Your task to perform on an android device: empty trash in the gmail app Image 0: 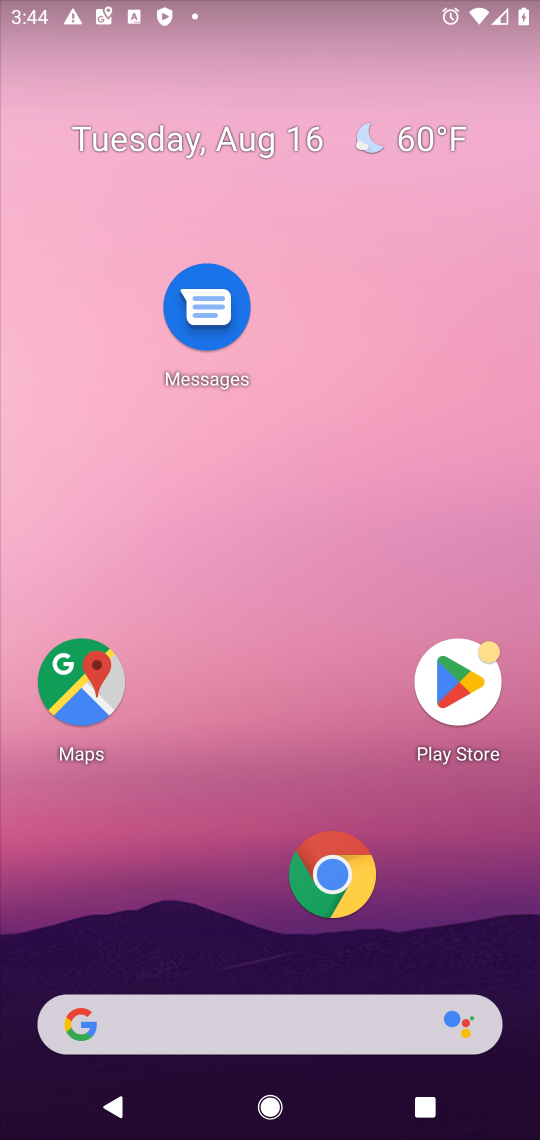
Step 0: drag from (257, 840) to (204, 302)
Your task to perform on an android device: empty trash in the gmail app Image 1: 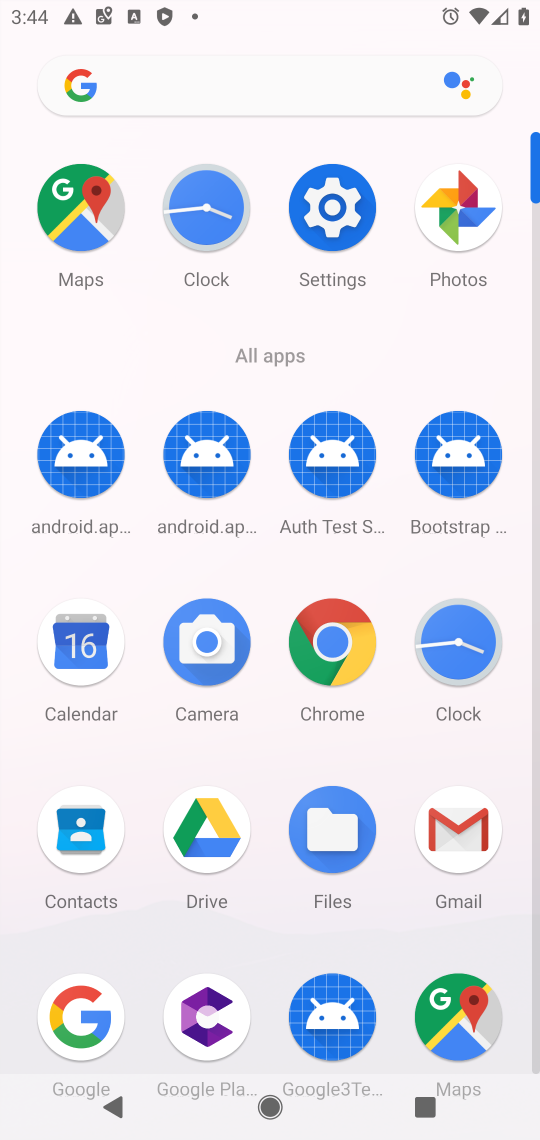
Step 1: click (461, 837)
Your task to perform on an android device: empty trash in the gmail app Image 2: 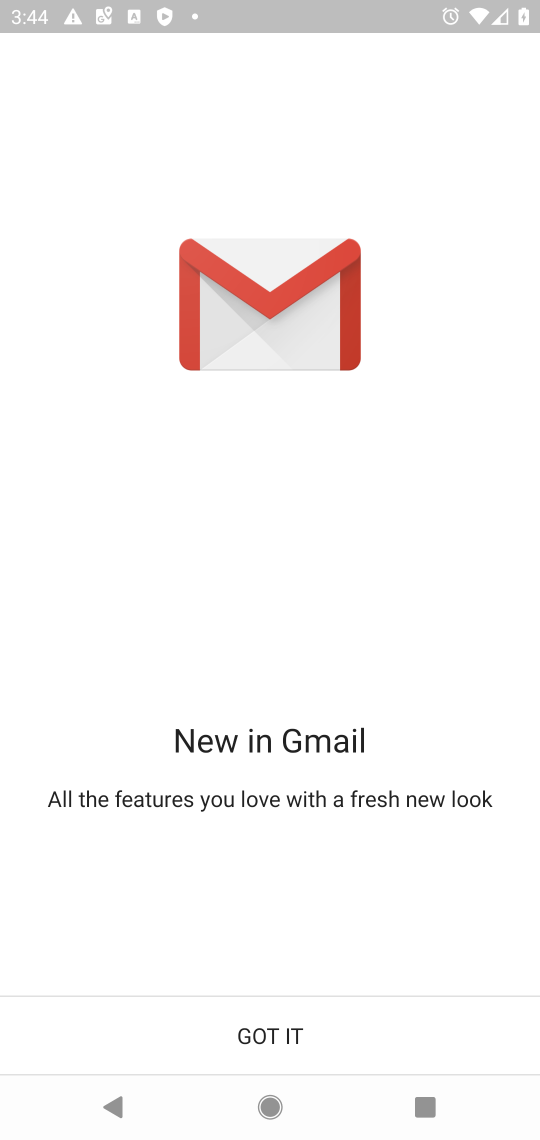
Step 2: click (269, 1027)
Your task to perform on an android device: empty trash in the gmail app Image 3: 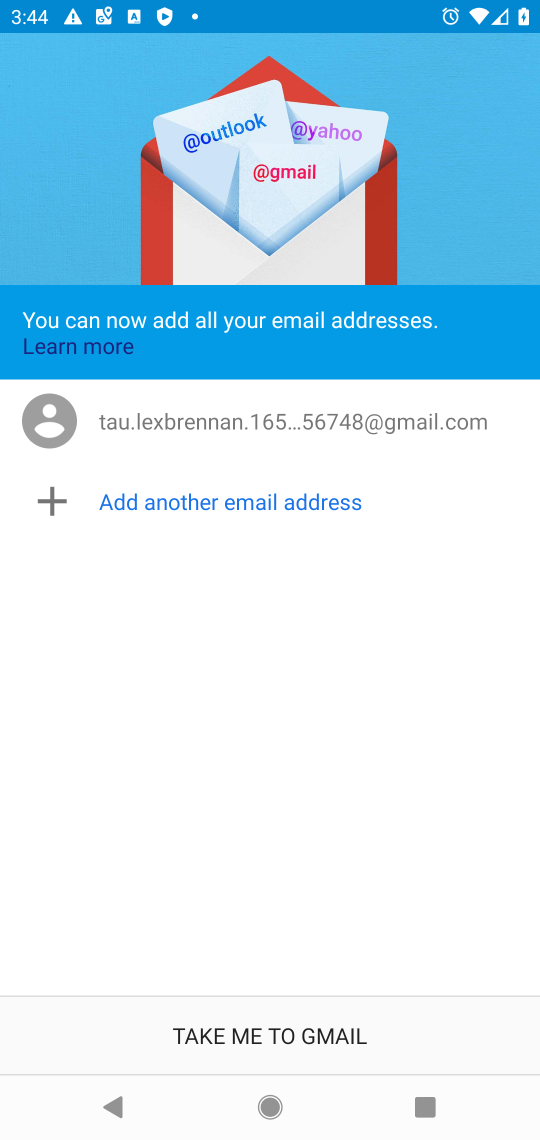
Step 3: click (238, 1039)
Your task to perform on an android device: empty trash in the gmail app Image 4: 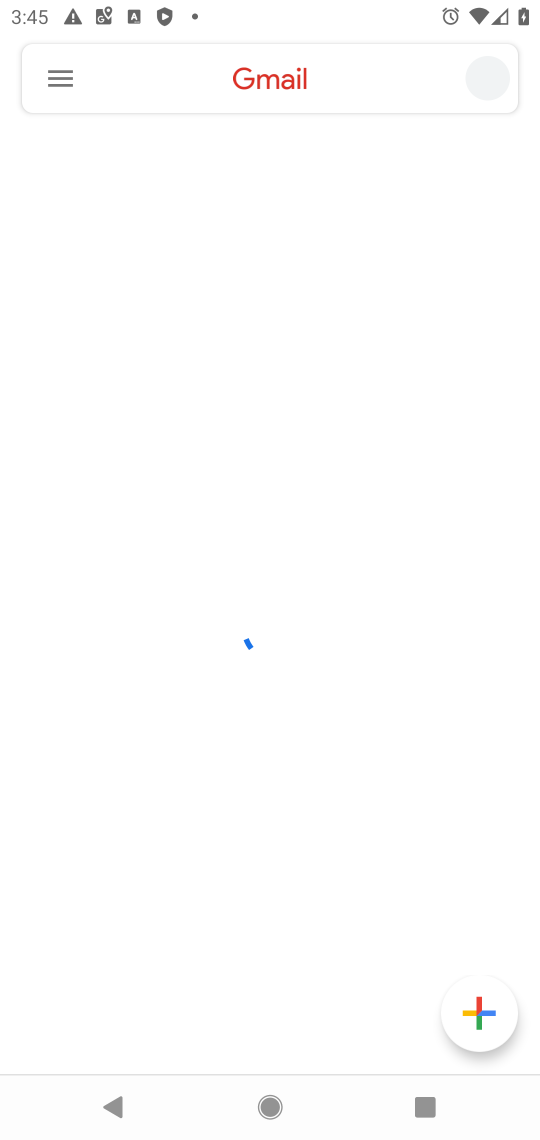
Step 4: click (59, 86)
Your task to perform on an android device: empty trash in the gmail app Image 5: 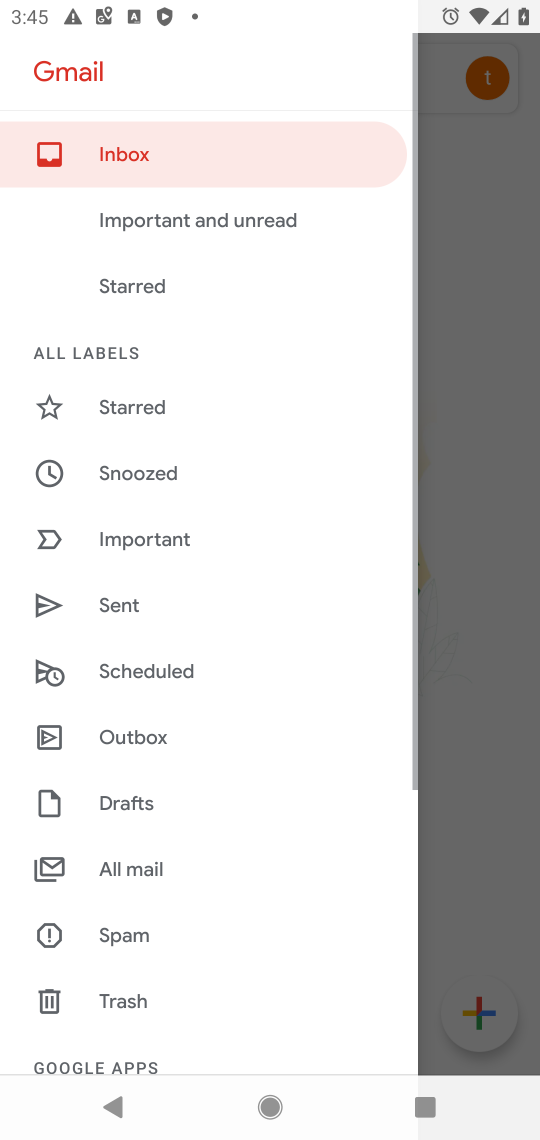
Step 5: click (453, 319)
Your task to perform on an android device: empty trash in the gmail app Image 6: 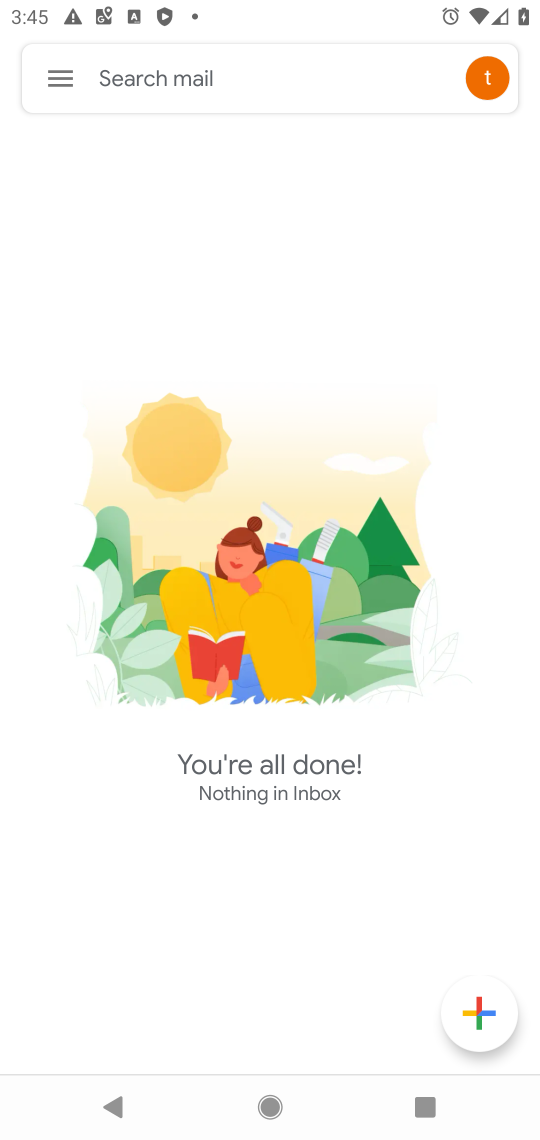
Step 6: click (60, 74)
Your task to perform on an android device: empty trash in the gmail app Image 7: 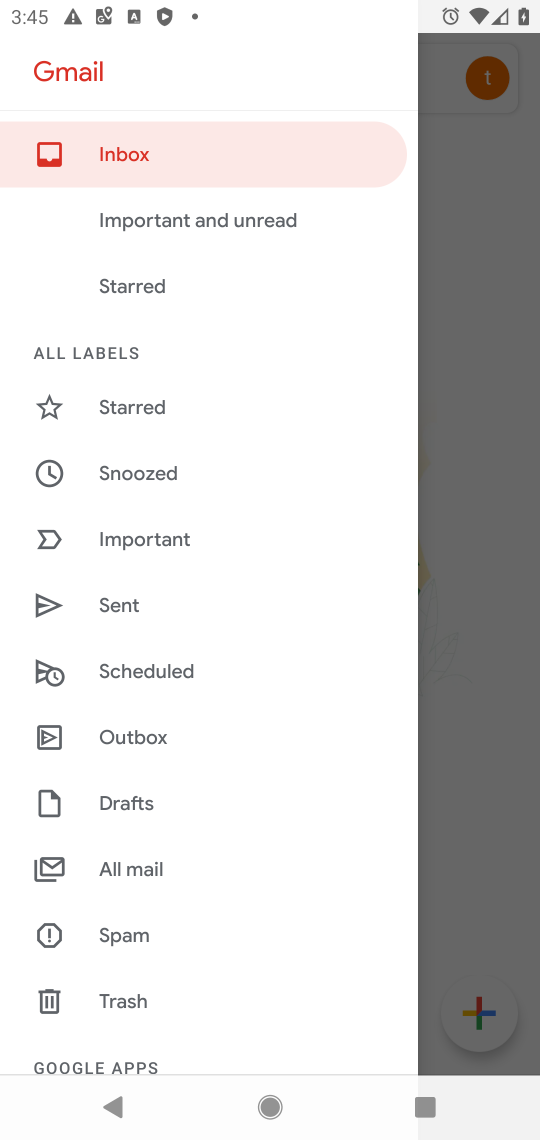
Step 7: click (125, 1012)
Your task to perform on an android device: empty trash in the gmail app Image 8: 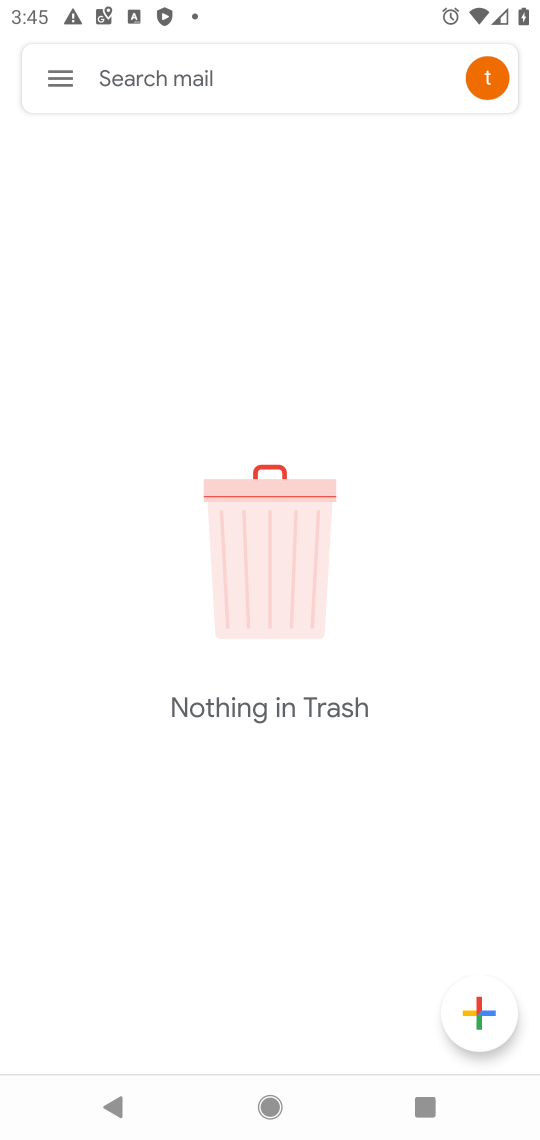
Step 8: task complete